Your task to perform on an android device: all mails in gmail Image 0: 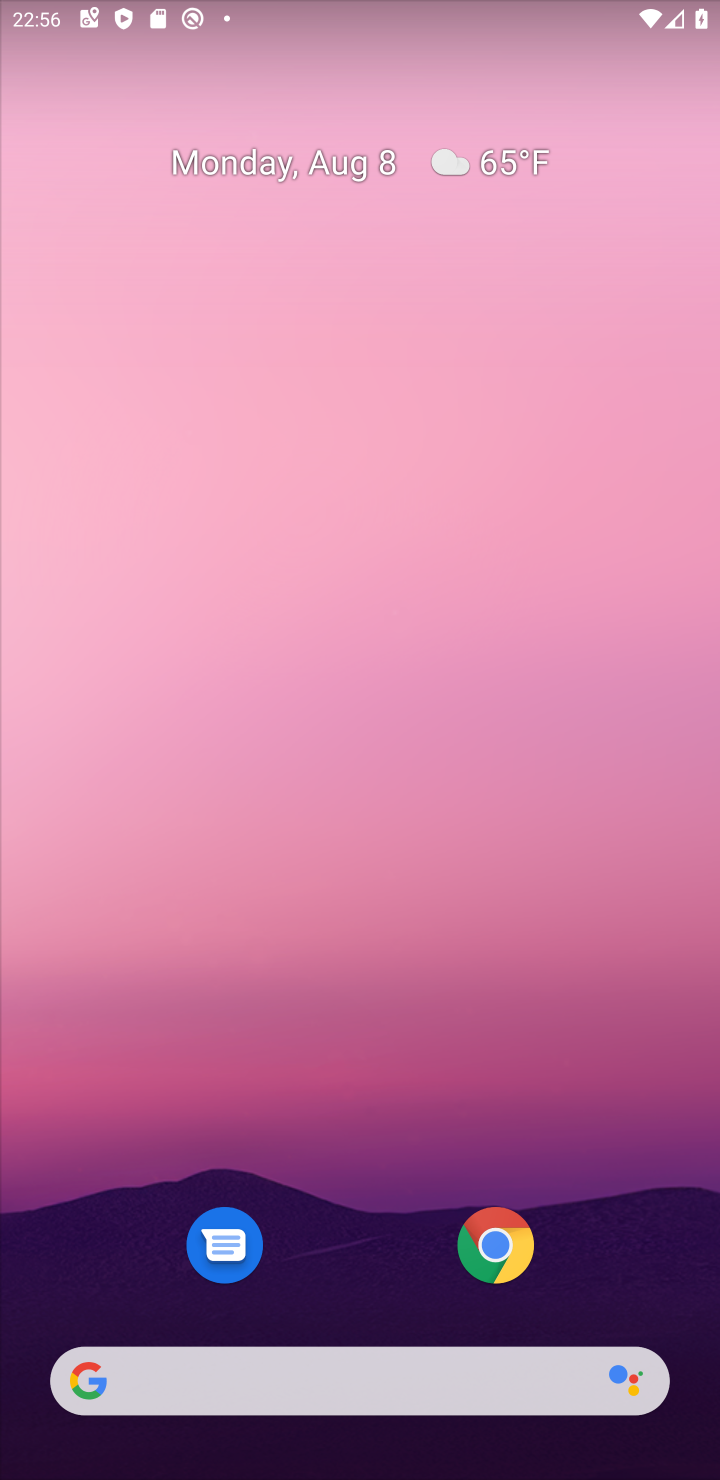
Step 0: drag from (384, 1146) to (374, 108)
Your task to perform on an android device: all mails in gmail Image 1: 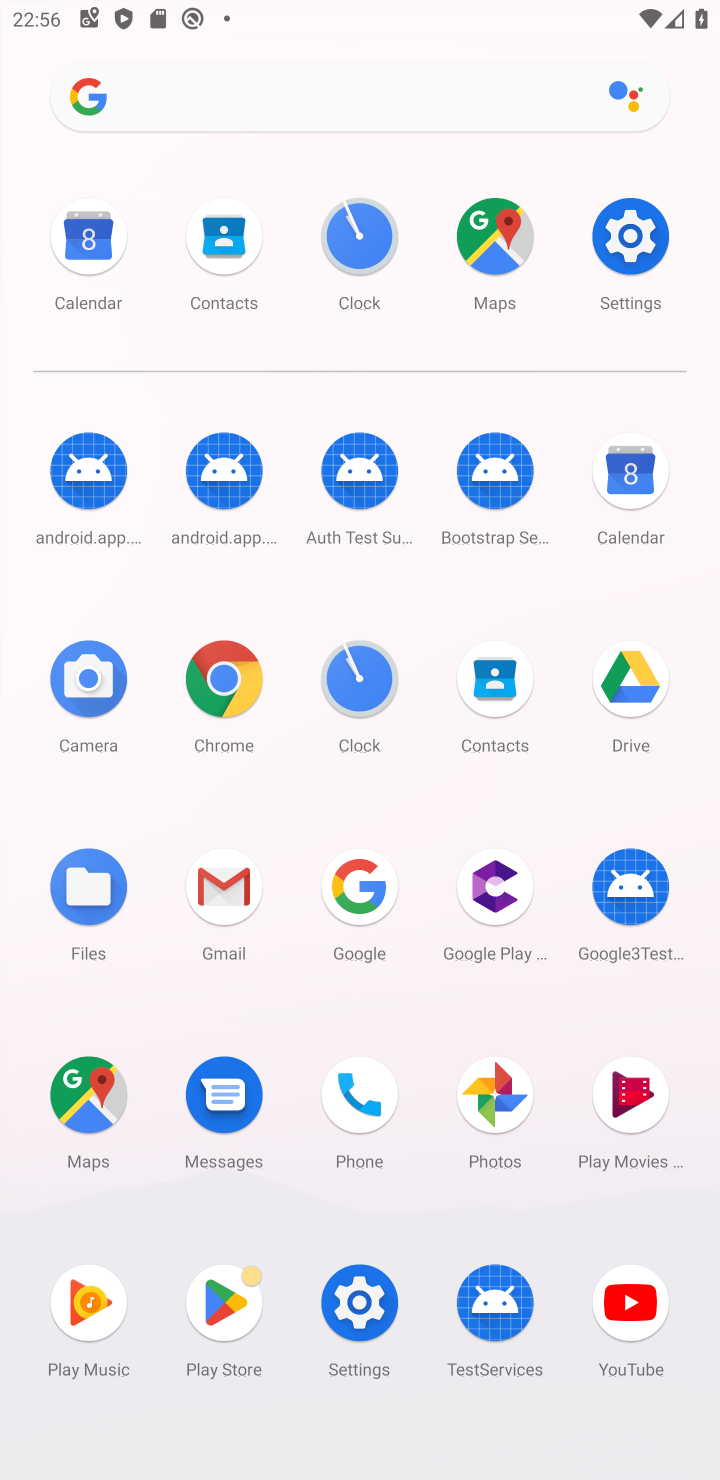
Step 1: click (218, 872)
Your task to perform on an android device: all mails in gmail Image 2: 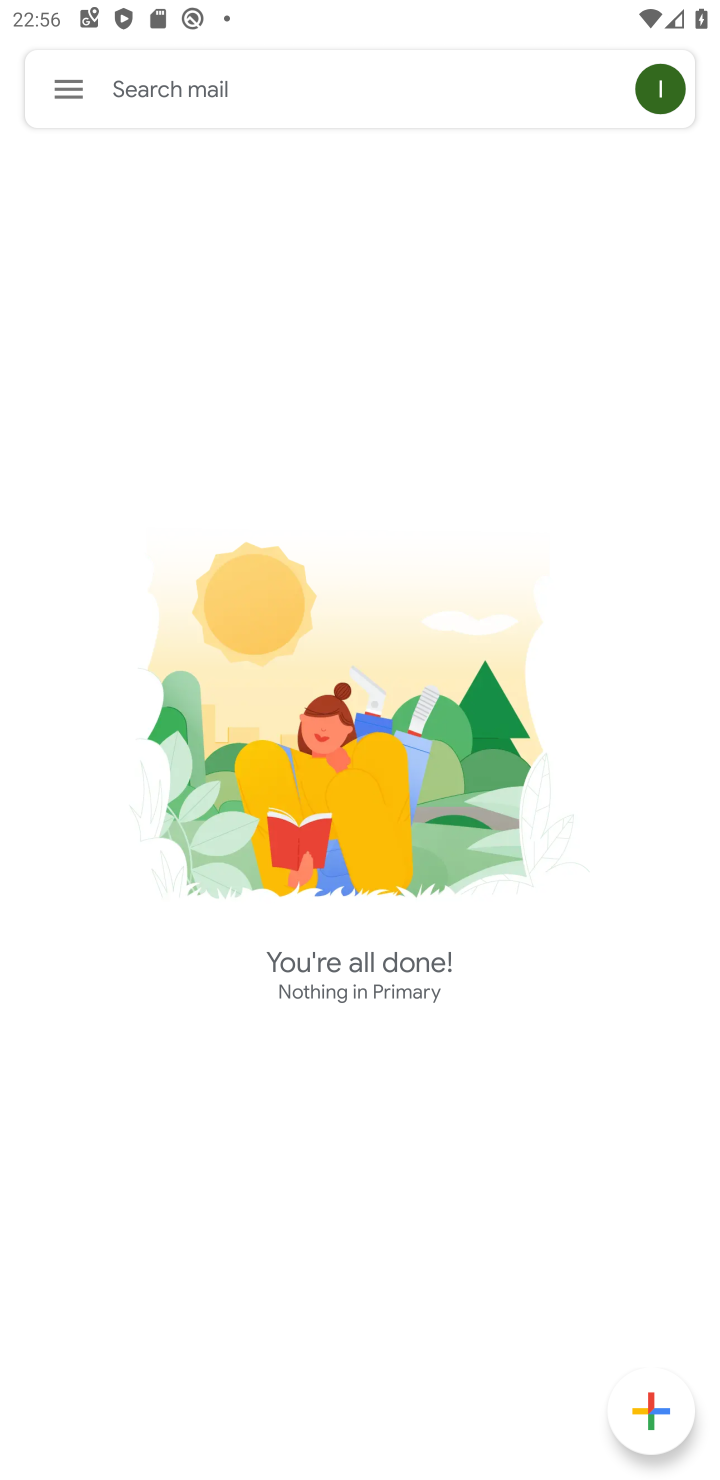
Step 2: click (65, 77)
Your task to perform on an android device: all mails in gmail Image 3: 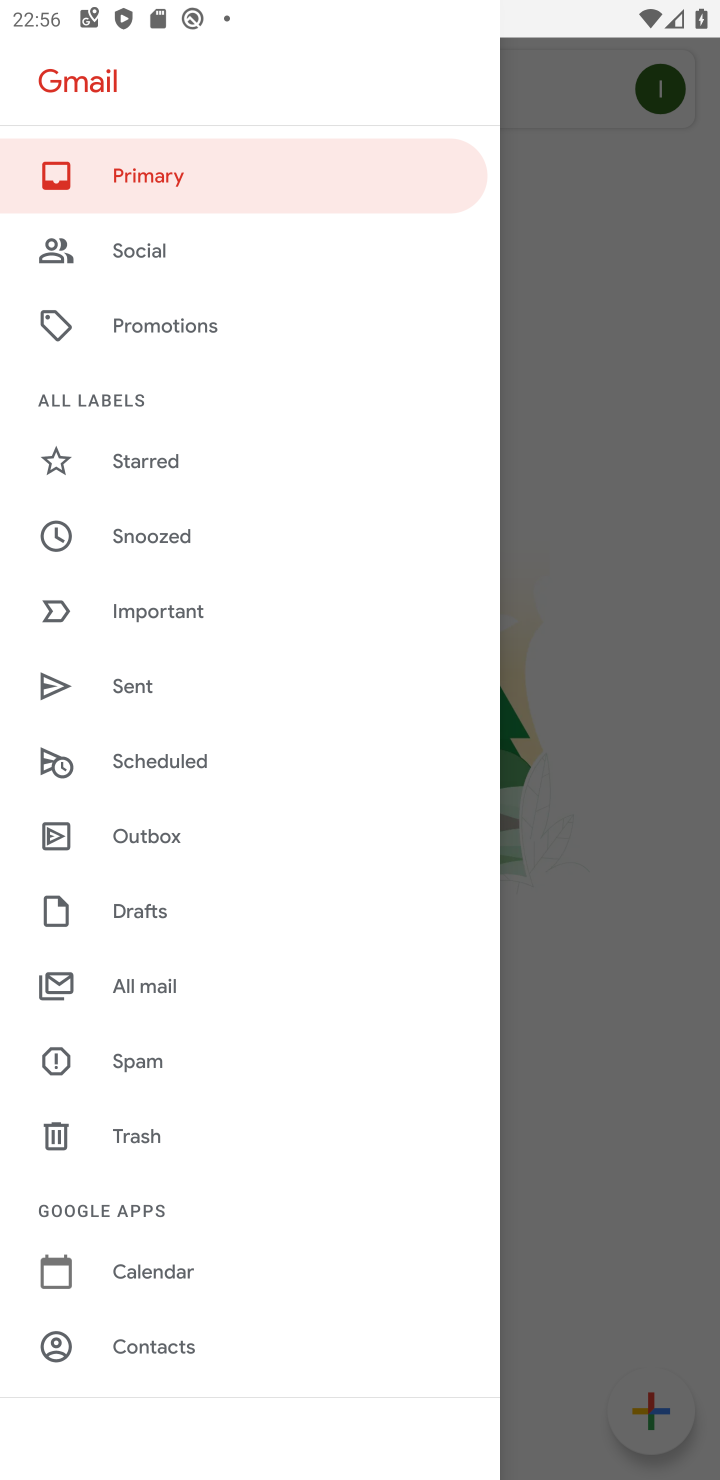
Step 3: click (147, 982)
Your task to perform on an android device: all mails in gmail Image 4: 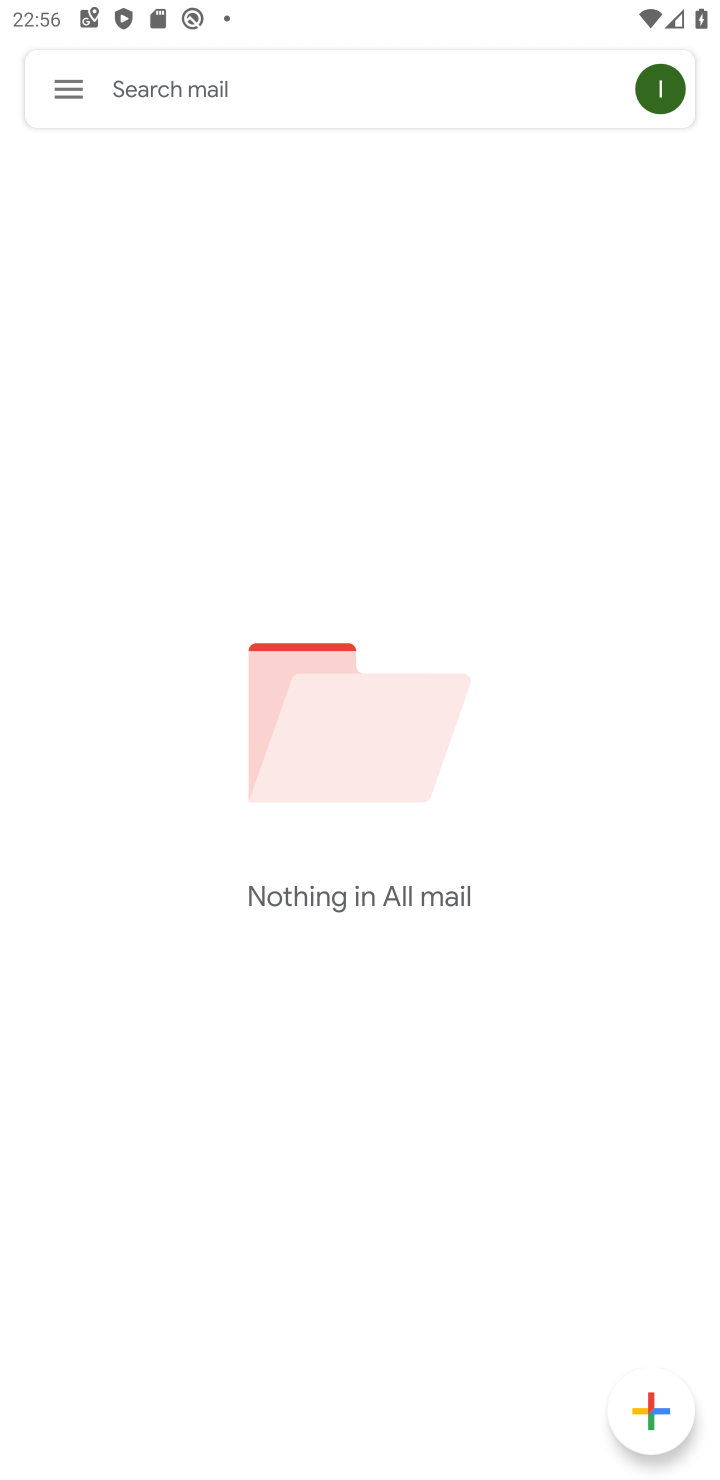
Step 4: task complete